Your task to perform on an android device: toggle translation in the chrome app Image 0: 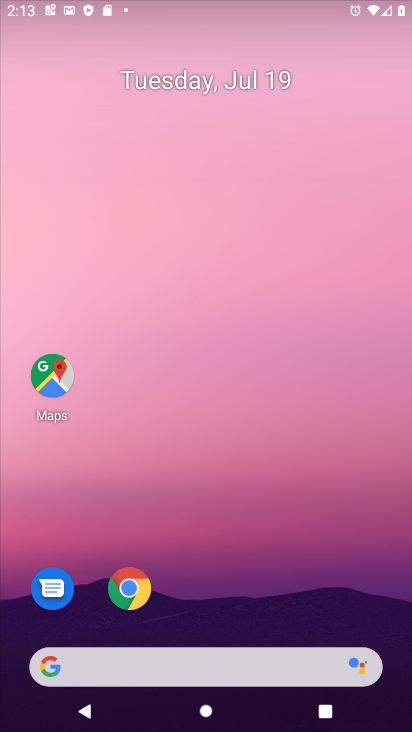
Step 0: drag from (394, 641) to (208, 171)
Your task to perform on an android device: toggle translation in the chrome app Image 1: 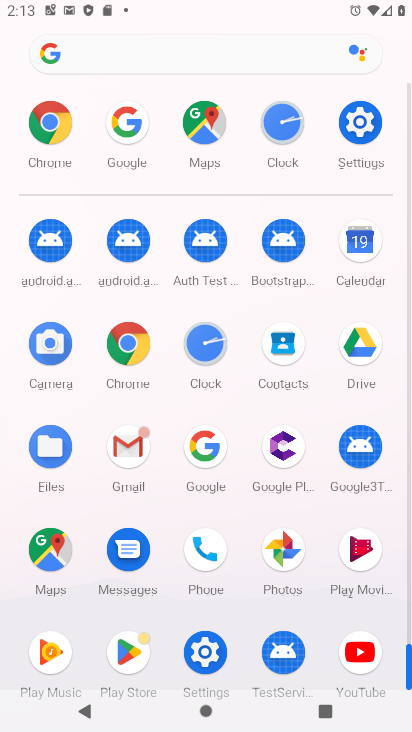
Step 1: click (147, 361)
Your task to perform on an android device: toggle translation in the chrome app Image 2: 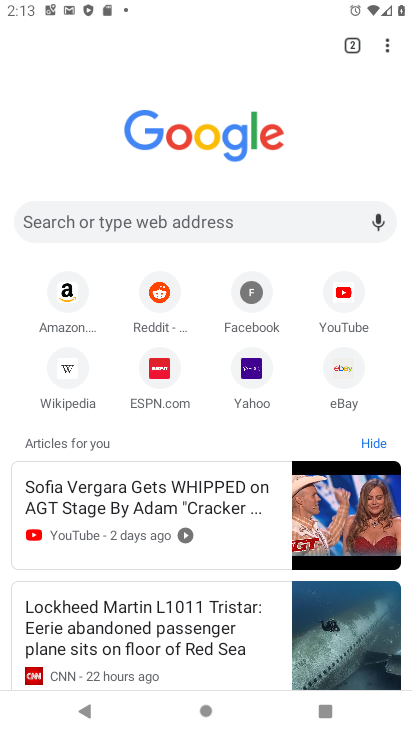
Step 2: click (383, 42)
Your task to perform on an android device: toggle translation in the chrome app Image 3: 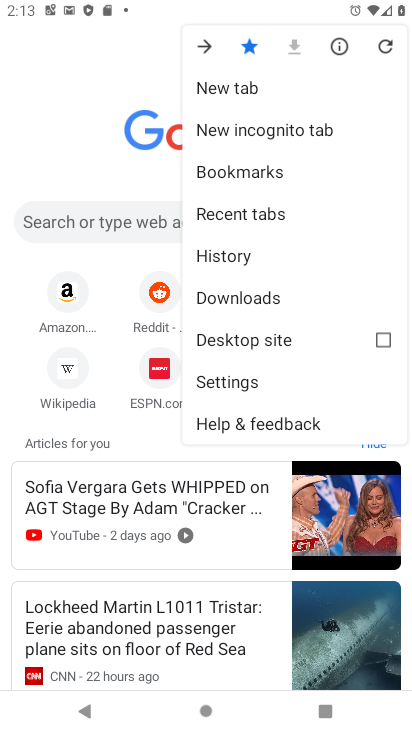
Step 3: click (223, 384)
Your task to perform on an android device: toggle translation in the chrome app Image 4: 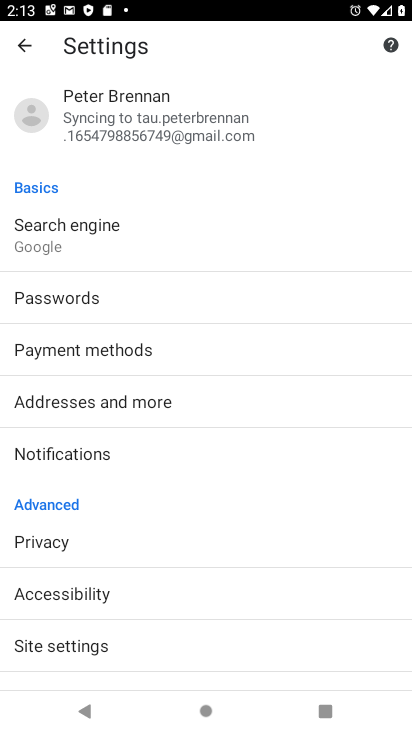
Step 4: drag from (102, 639) to (75, 307)
Your task to perform on an android device: toggle translation in the chrome app Image 5: 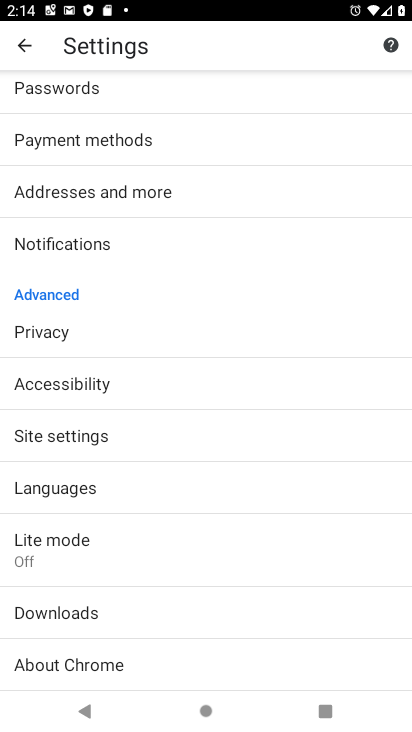
Step 5: click (92, 493)
Your task to perform on an android device: toggle translation in the chrome app Image 6: 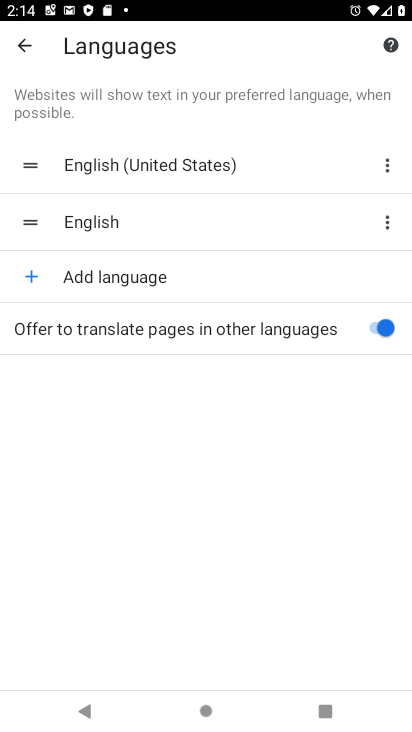
Step 6: click (371, 321)
Your task to perform on an android device: toggle translation in the chrome app Image 7: 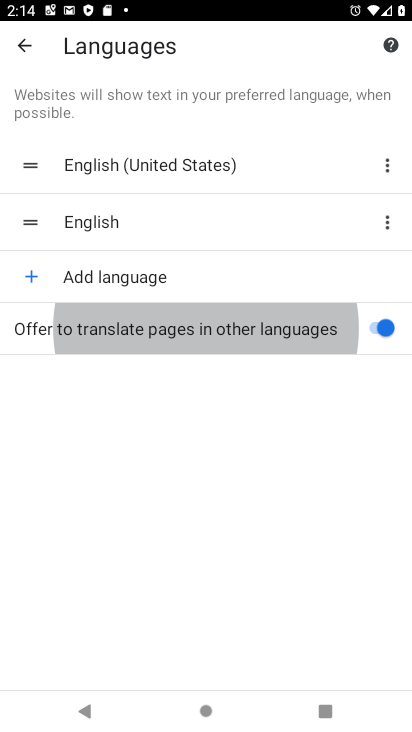
Step 7: click (371, 321)
Your task to perform on an android device: toggle translation in the chrome app Image 8: 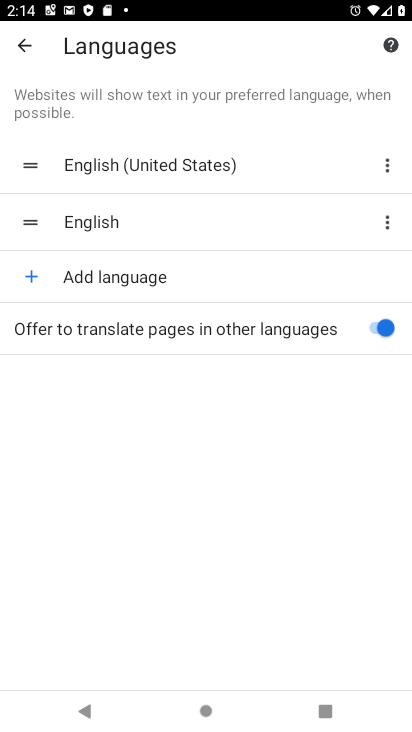
Step 8: click (384, 317)
Your task to perform on an android device: toggle translation in the chrome app Image 9: 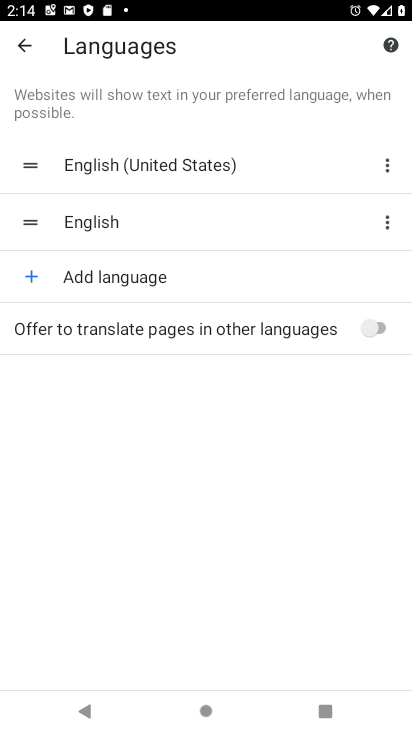
Step 9: task complete